Your task to perform on an android device: Open ESPN.com Image 0: 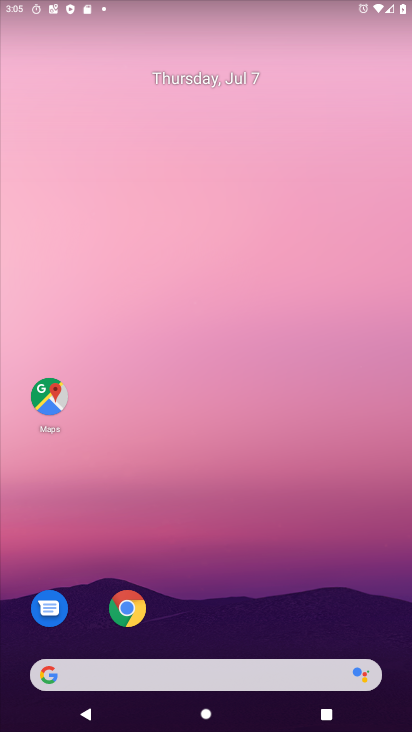
Step 0: click (128, 611)
Your task to perform on an android device: Open ESPN.com Image 1: 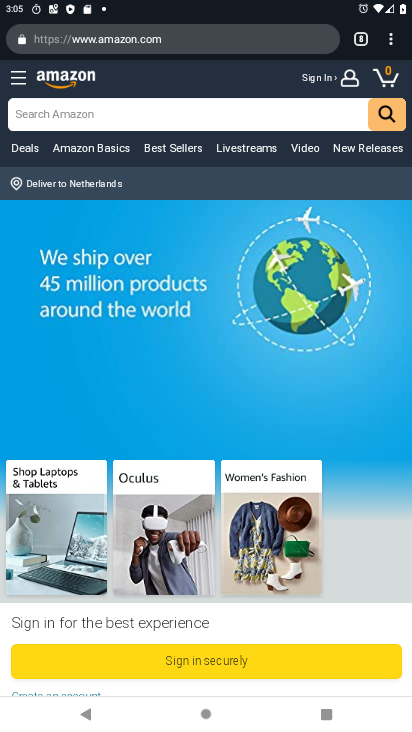
Step 1: click (390, 45)
Your task to perform on an android device: Open ESPN.com Image 2: 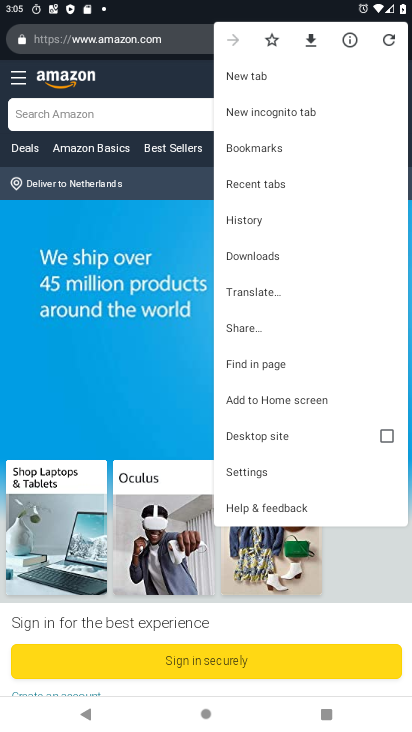
Step 2: click (248, 72)
Your task to perform on an android device: Open ESPN.com Image 3: 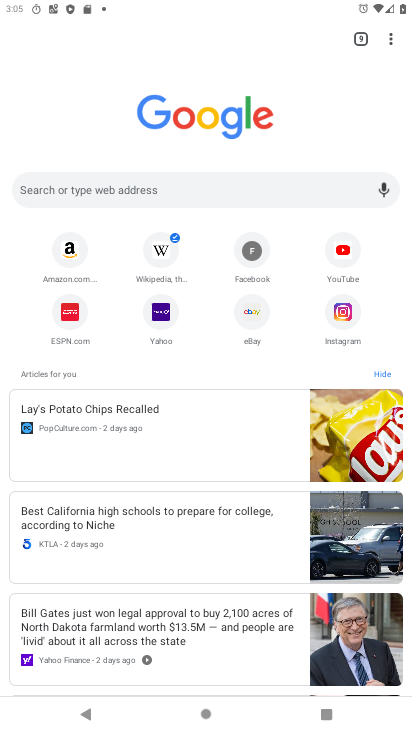
Step 3: click (65, 307)
Your task to perform on an android device: Open ESPN.com Image 4: 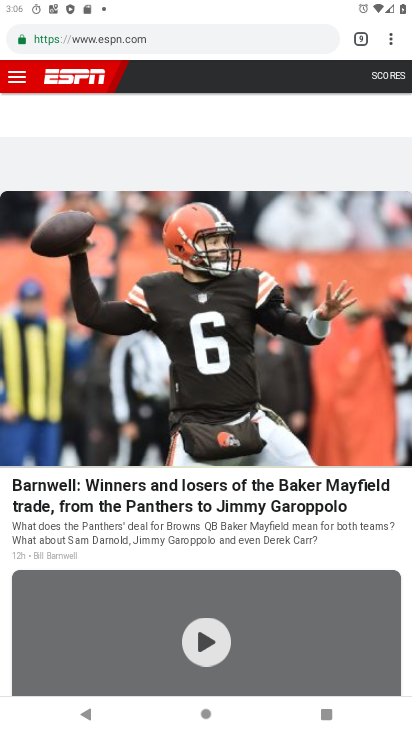
Step 4: task complete